Your task to perform on an android device: change the upload size in google photos Image 0: 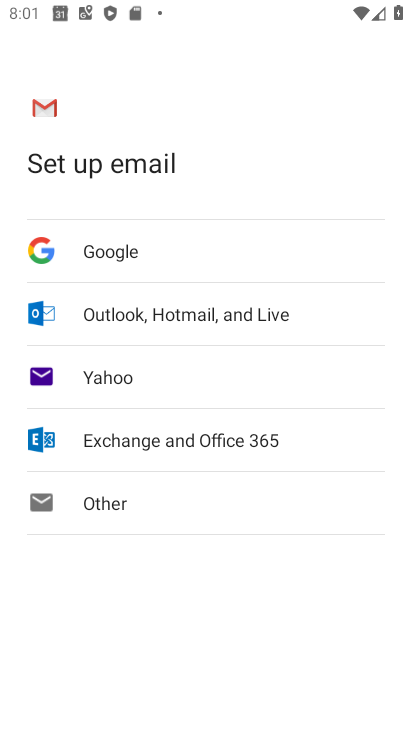
Step 0: press home button
Your task to perform on an android device: change the upload size in google photos Image 1: 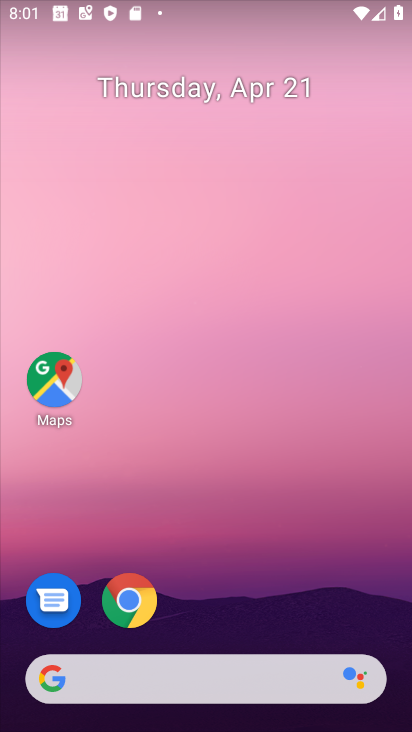
Step 1: drag from (48, 602) to (378, 232)
Your task to perform on an android device: change the upload size in google photos Image 2: 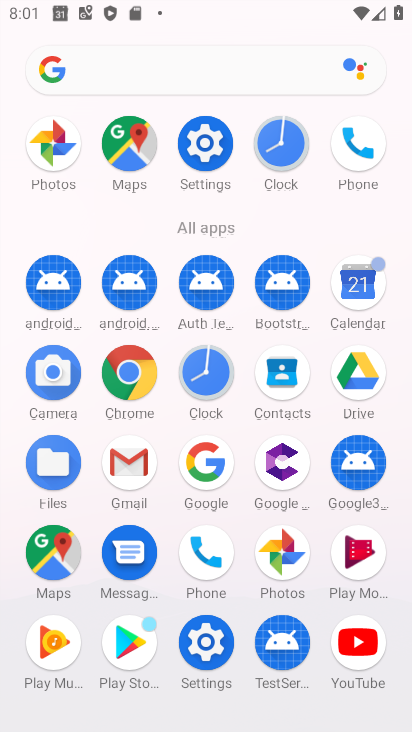
Step 2: click (283, 546)
Your task to perform on an android device: change the upload size in google photos Image 3: 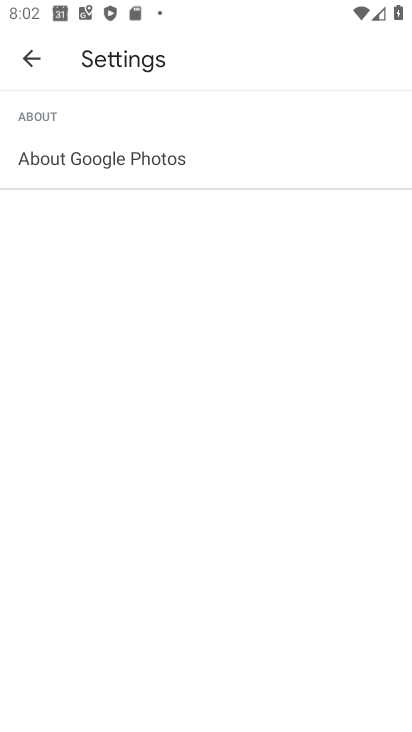
Step 3: click (23, 54)
Your task to perform on an android device: change the upload size in google photos Image 4: 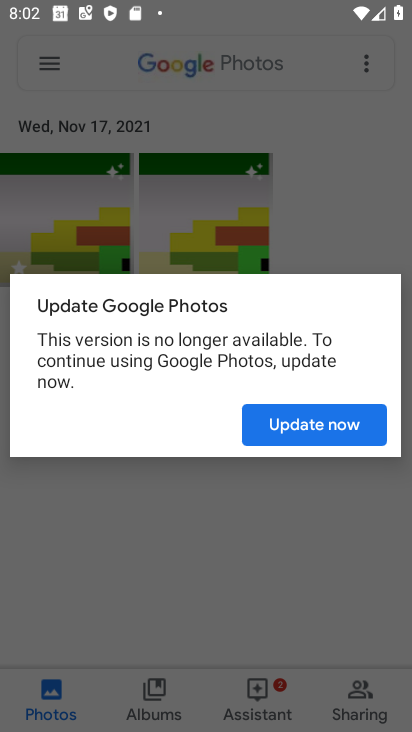
Step 4: click (271, 436)
Your task to perform on an android device: change the upload size in google photos Image 5: 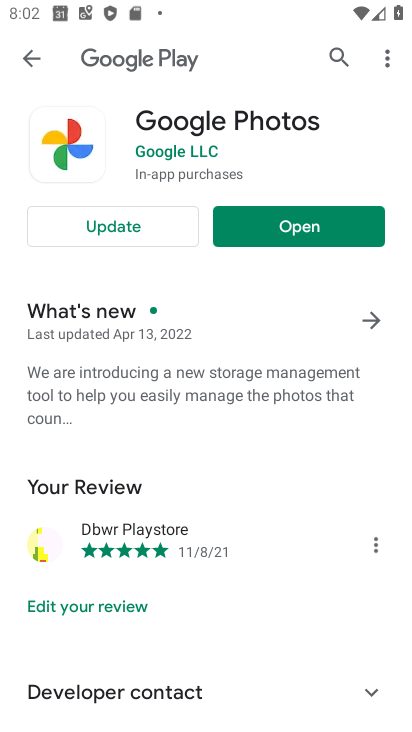
Step 5: click (338, 211)
Your task to perform on an android device: change the upload size in google photos Image 6: 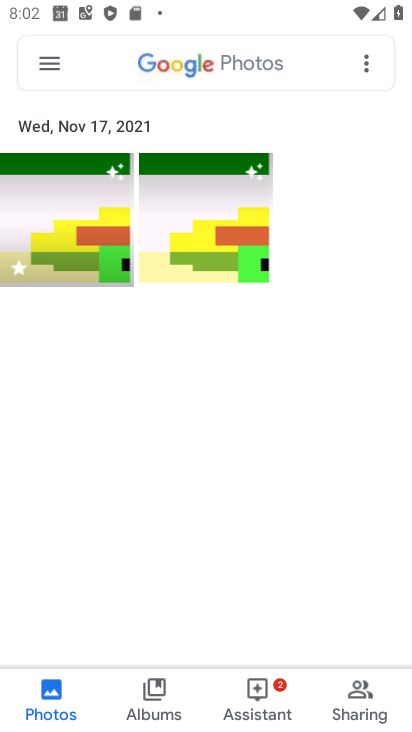
Step 6: click (363, 57)
Your task to perform on an android device: change the upload size in google photos Image 7: 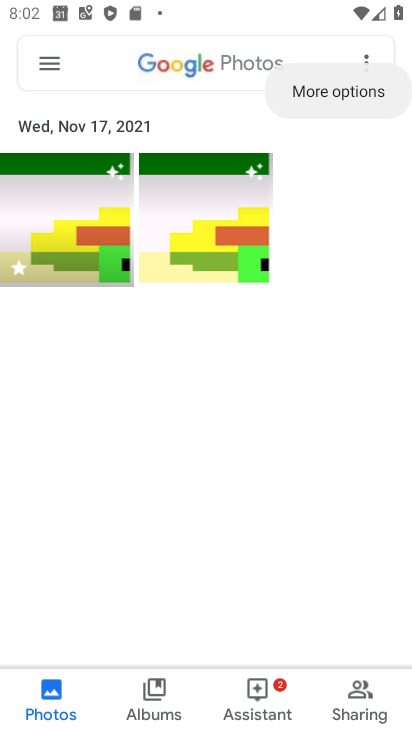
Step 7: click (315, 96)
Your task to perform on an android device: change the upload size in google photos Image 8: 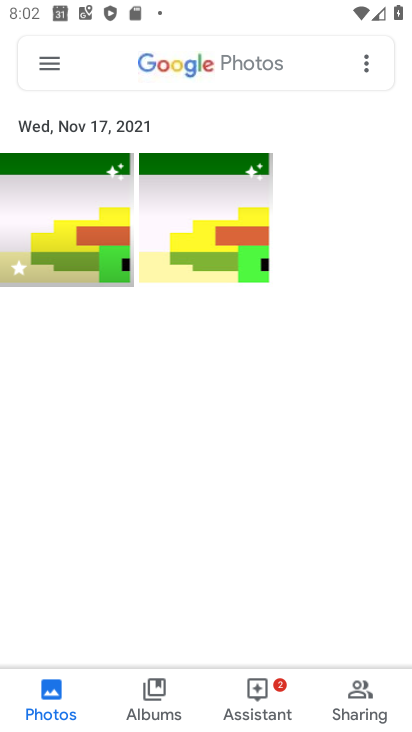
Step 8: click (56, 61)
Your task to perform on an android device: change the upload size in google photos Image 9: 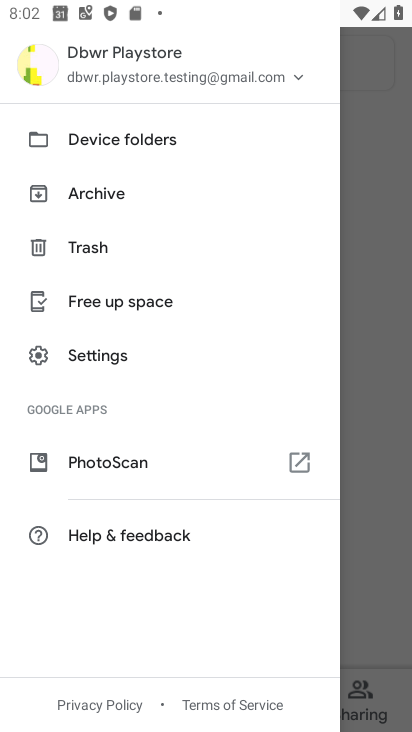
Step 9: click (116, 354)
Your task to perform on an android device: change the upload size in google photos Image 10: 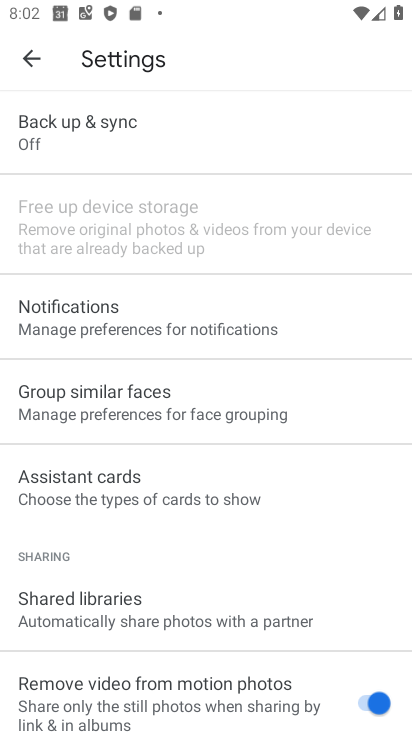
Step 10: click (30, 60)
Your task to perform on an android device: change the upload size in google photos Image 11: 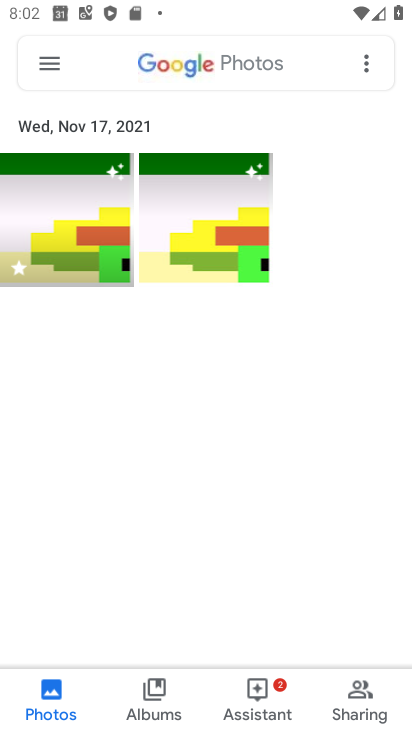
Step 11: click (35, 61)
Your task to perform on an android device: change the upload size in google photos Image 12: 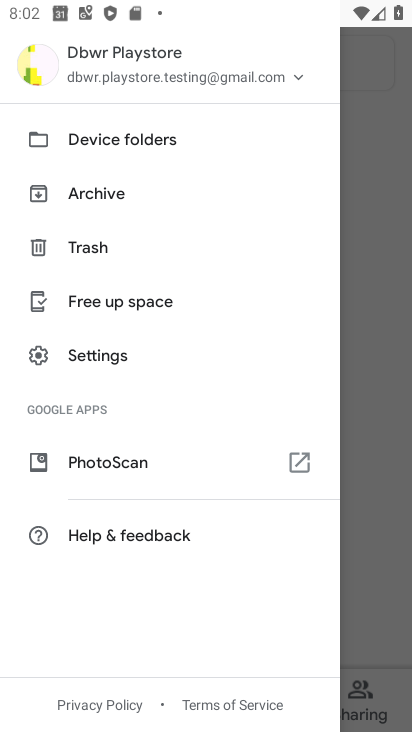
Step 12: click (84, 360)
Your task to perform on an android device: change the upload size in google photos Image 13: 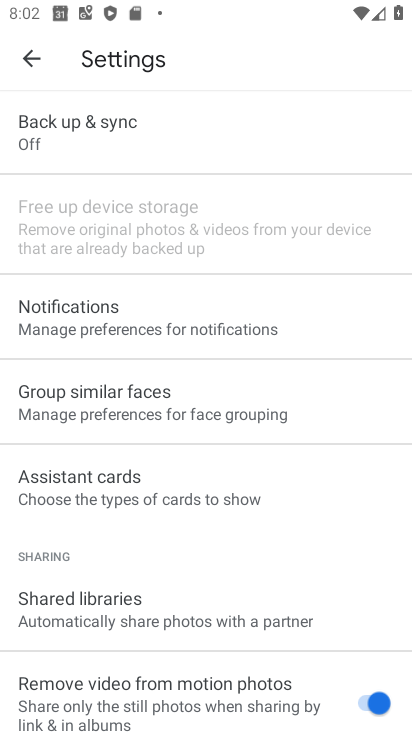
Step 13: drag from (72, 84) to (76, 565)
Your task to perform on an android device: change the upload size in google photos Image 14: 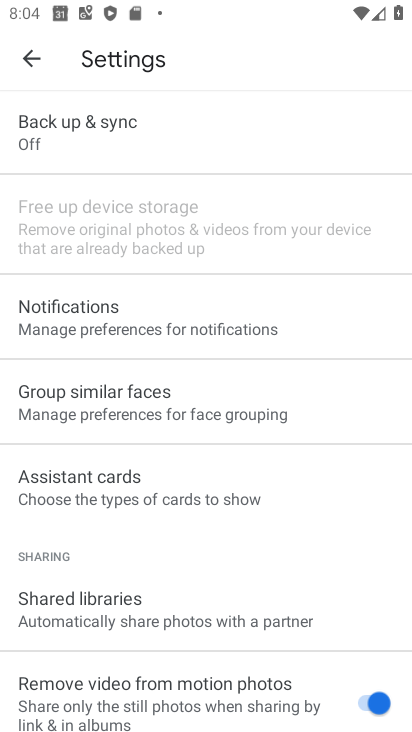
Step 14: click (78, 628)
Your task to perform on an android device: change the upload size in google photos Image 15: 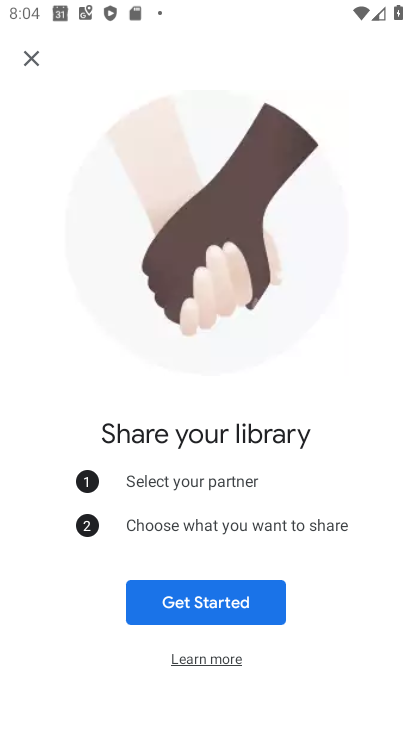
Step 15: task complete